Your task to perform on an android device: turn vacation reply on in the gmail app Image 0: 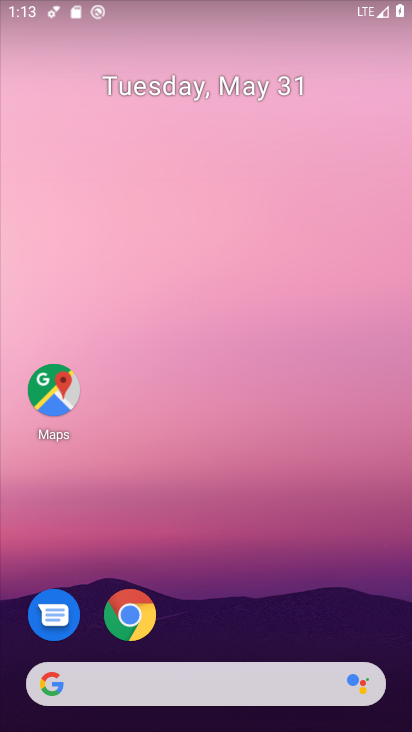
Step 0: drag from (189, 624) to (316, 0)
Your task to perform on an android device: turn vacation reply on in the gmail app Image 1: 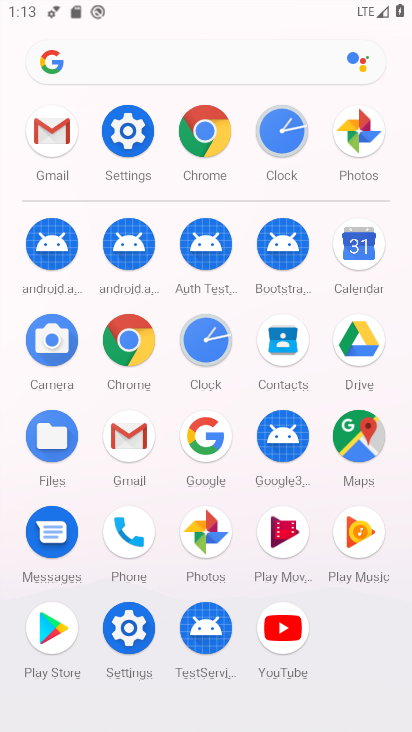
Step 1: click (132, 432)
Your task to perform on an android device: turn vacation reply on in the gmail app Image 2: 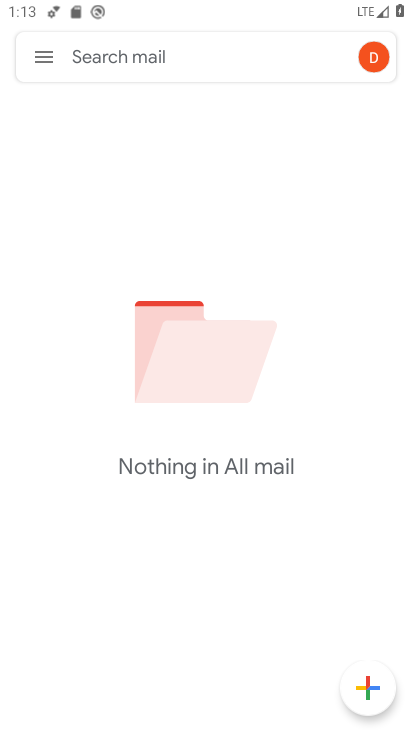
Step 2: click (43, 56)
Your task to perform on an android device: turn vacation reply on in the gmail app Image 3: 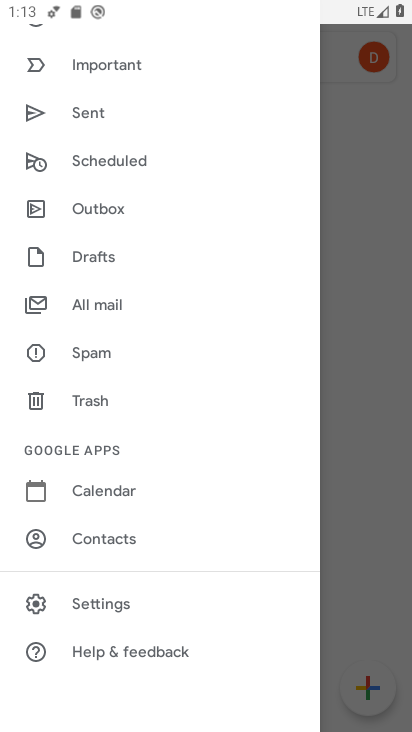
Step 3: click (121, 591)
Your task to perform on an android device: turn vacation reply on in the gmail app Image 4: 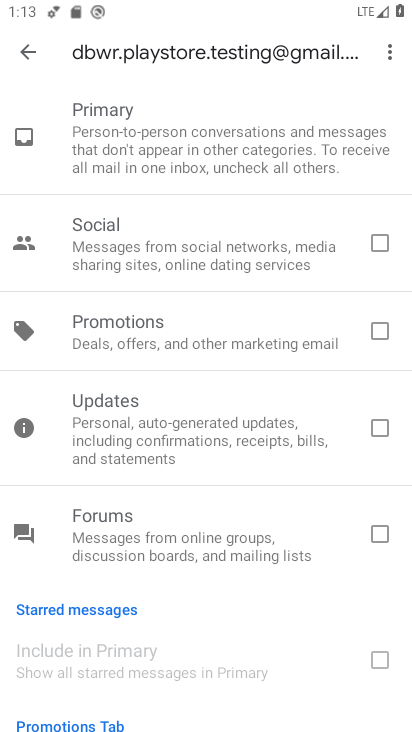
Step 4: drag from (171, 528) to (276, 0)
Your task to perform on an android device: turn vacation reply on in the gmail app Image 5: 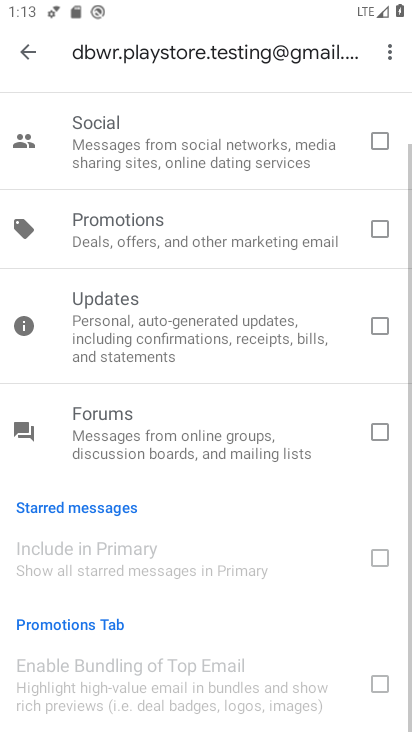
Step 5: click (28, 41)
Your task to perform on an android device: turn vacation reply on in the gmail app Image 6: 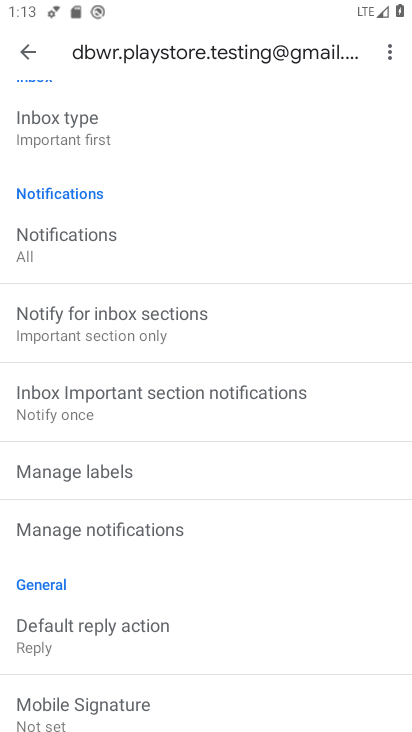
Step 6: drag from (135, 545) to (185, 234)
Your task to perform on an android device: turn vacation reply on in the gmail app Image 7: 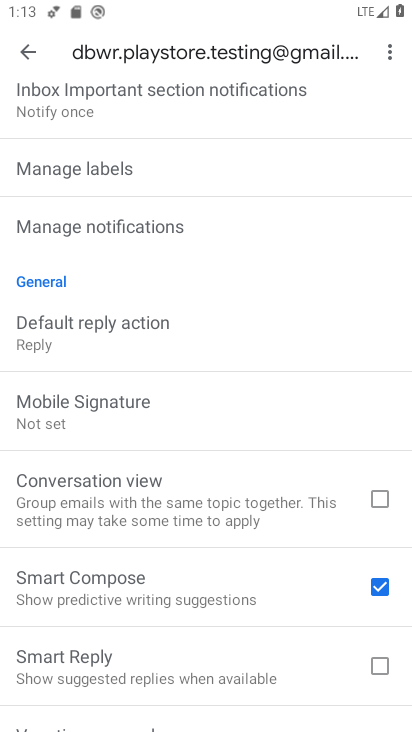
Step 7: drag from (178, 595) to (274, 214)
Your task to perform on an android device: turn vacation reply on in the gmail app Image 8: 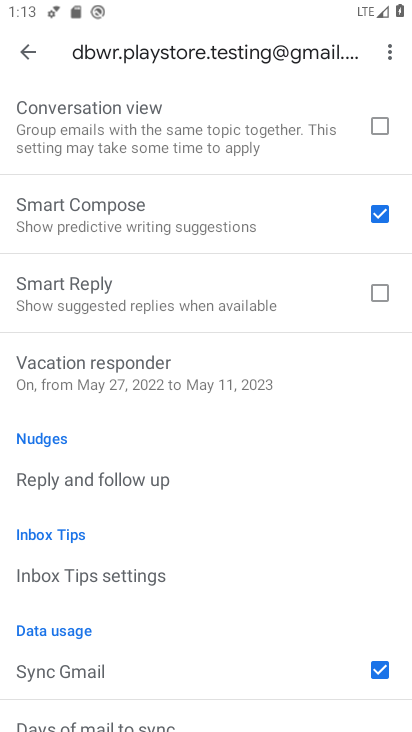
Step 8: click (221, 376)
Your task to perform on an android device: turn vacation reply on in the gmail app Image 9: 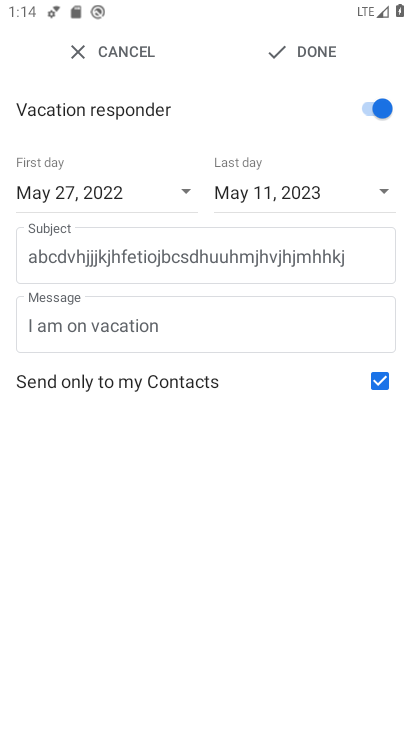
Step 9: task complete